Your task to perform on an android device: empty trash in google photos Image 0: 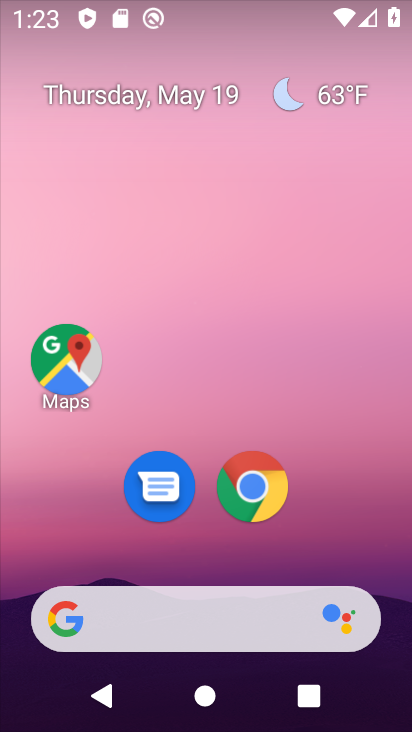
Step 0: drag from (327, 462) to (242, 35)
Your task to perform on an android device: empty trash in google photos Image 1: 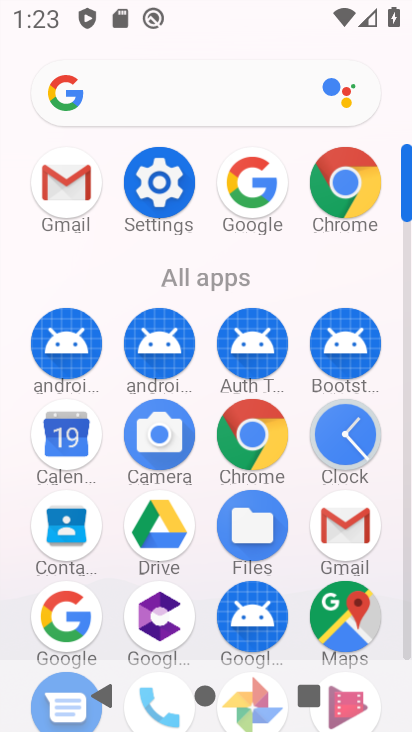
Step 1: drag from (279, 669) to (247, 236)
Your task to perform on an android device: empty trash in google photos Image 2: 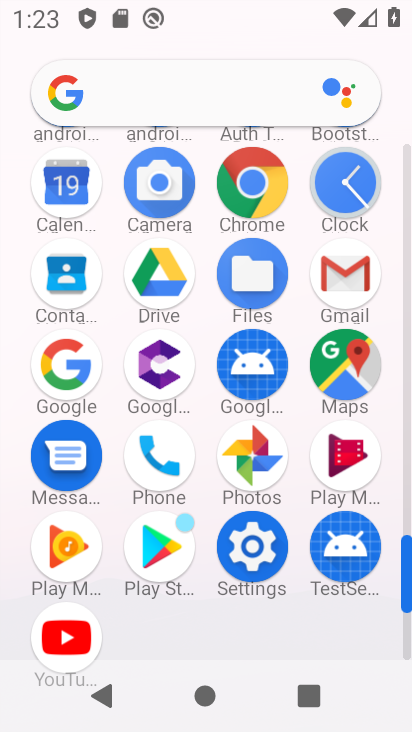
Step 2: click (255, 431)
Your task to perform on an android device: empty trash in google photos Image 3: 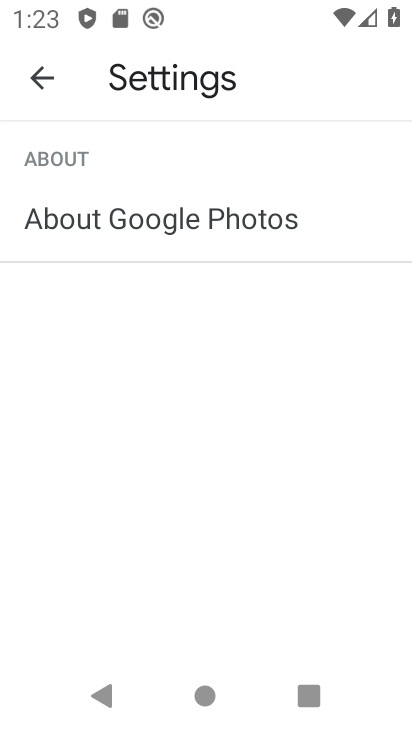
Step 3: click (38, 72)
Your task to perform on an android device: empty trash in google photos Image 4: 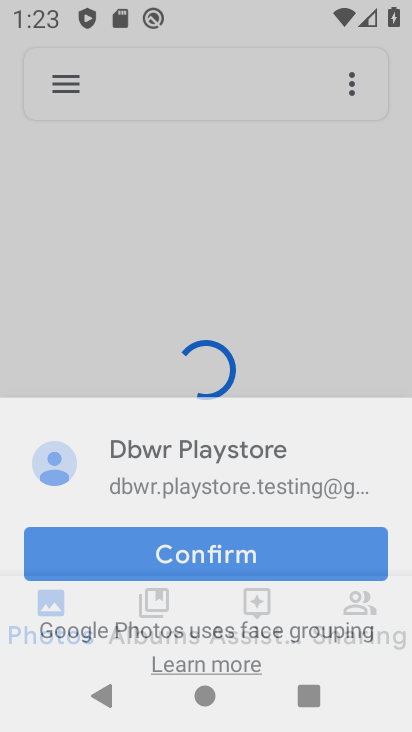
Step 4: click (69, 85)
Your task to perform on an android device: empty trash in google photos Image 5: 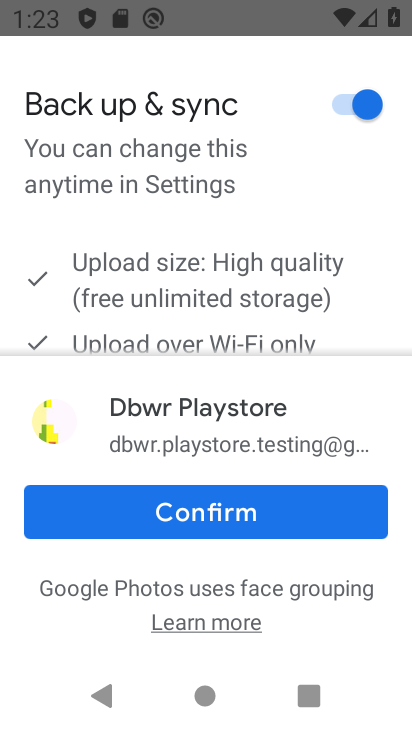
Step 5: click (213, 510)
Your task to perform on an android device: empty trash in google photos Image 6: 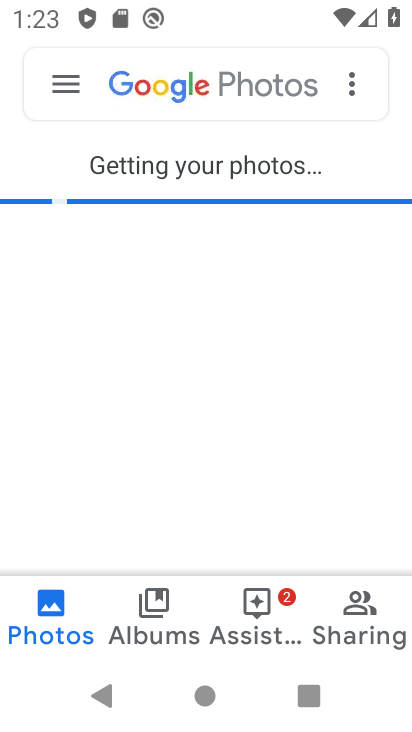
Step 6: click (58, 81)
Your task to perform on an android device: empty trash in google photos Image 7: 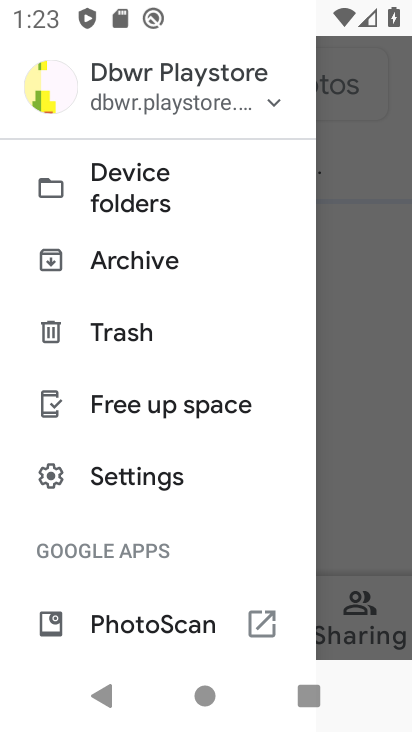
Step 7: click (160, 327)
Your task to perform on an android device: empty trash in google photos Image 8: 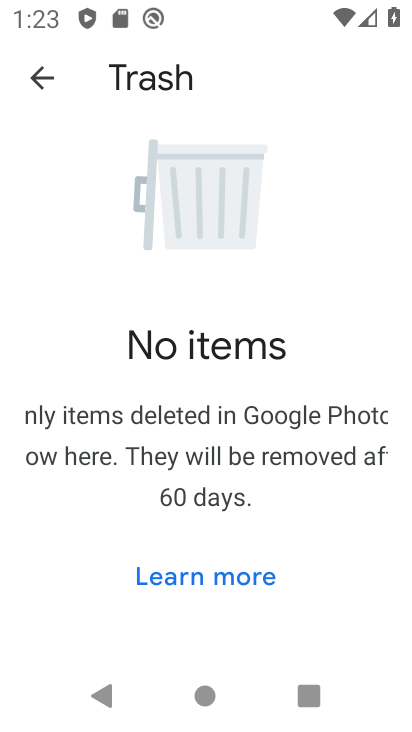
Step 8: task complete